Your task to perform on an android device: open app "Microsoft Excel" (install if not already installed) Image 0: 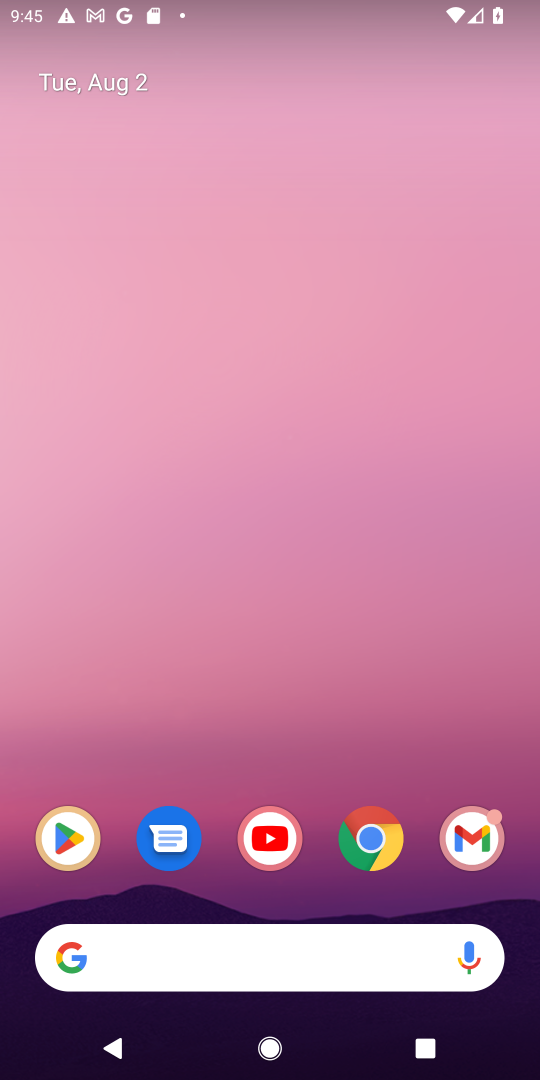
Step 0: drag from (308, 768) to (292, 90)
Your task to perform on an android device: open app "Microsoft Excel" (install if not already installed) Image 1: 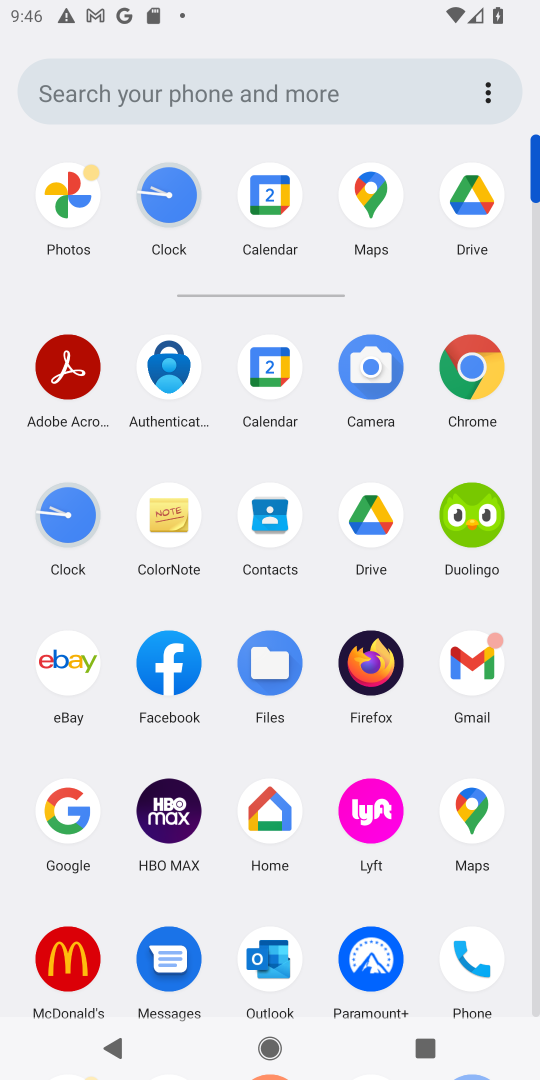
Step 1: drag from (313, 893) to (318, 534)
Your task to perform on an android device: open app "Microsoft Excel" (install if not already installed) Image 2: 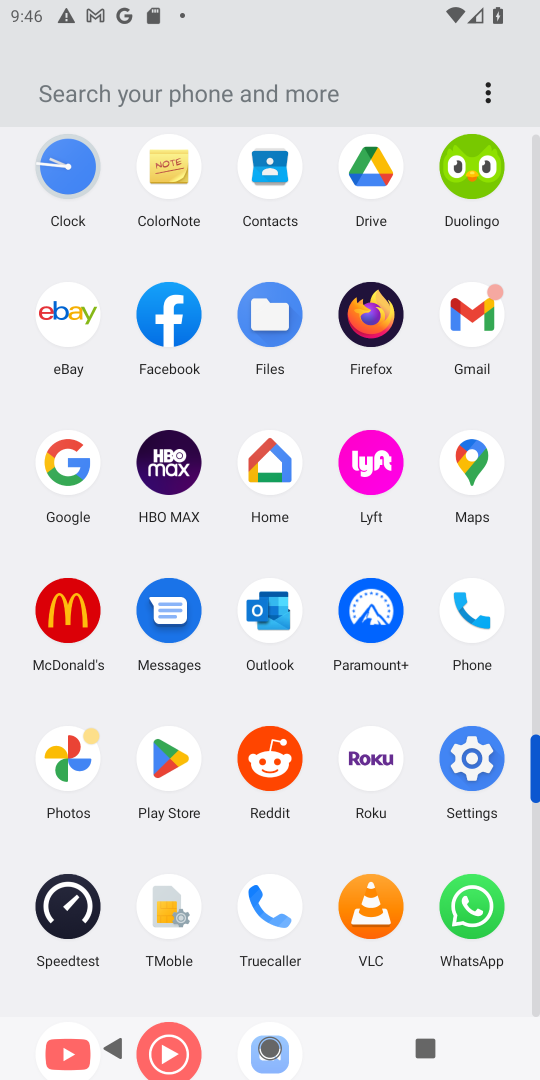
Step 2: click (168, 768)
Your task to perform on an android device: open app "Microsoft Excel" (install if not already installed) Image 3: 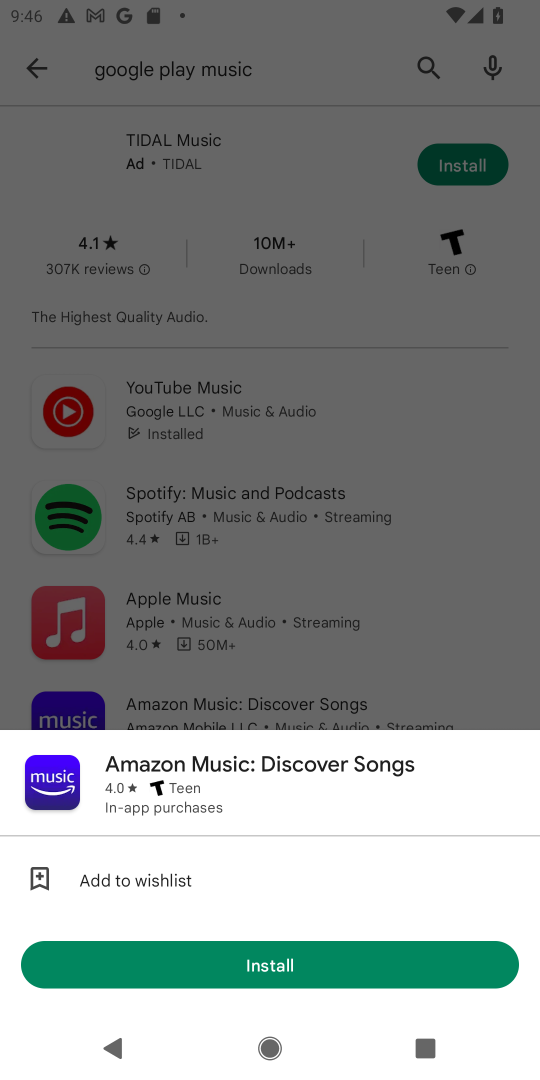
Step 3: press back button
Your task to perform on an android device: open app "Microsoft Excel" (install if not already installed) Image 4: 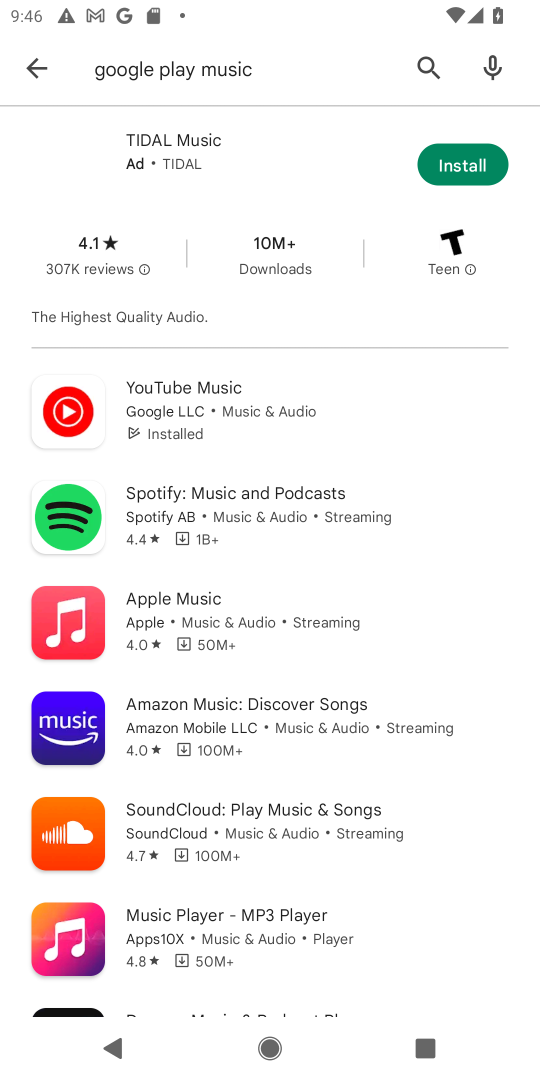
Step 4: click (426, 66)
Your task to perform on an android device: open app "Microsoft Excel" (install if not already installed) Image 5: 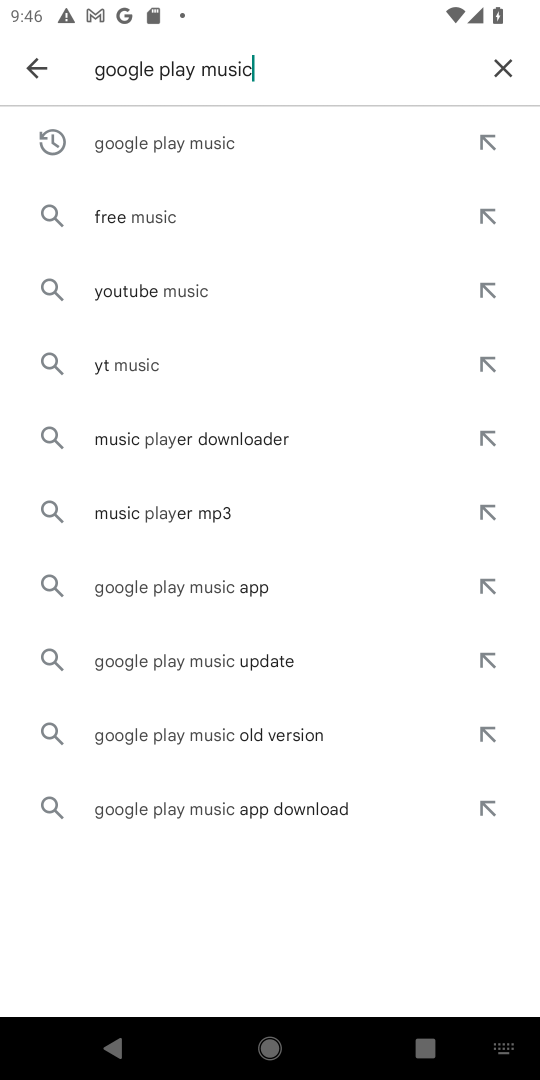
Step 5: click (501, 79)
Your task to perform on an android device: open app "Microsoft Excel" (install if not already installed) Image 6: 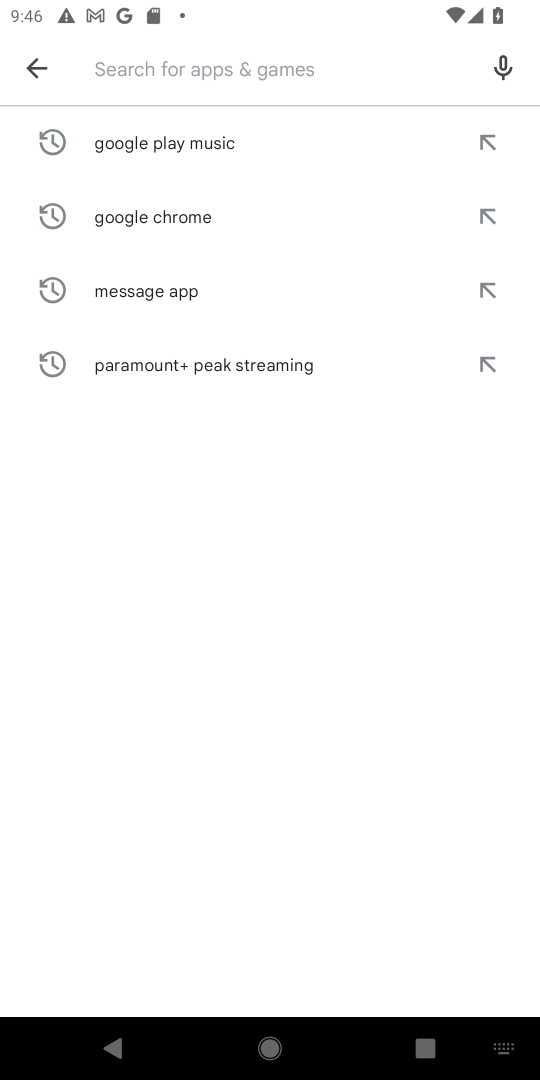
Step 6: click (359, 74)
Your task to perform on an android device: open app "Microsoft Excel" (install if not already installed) Image 7: 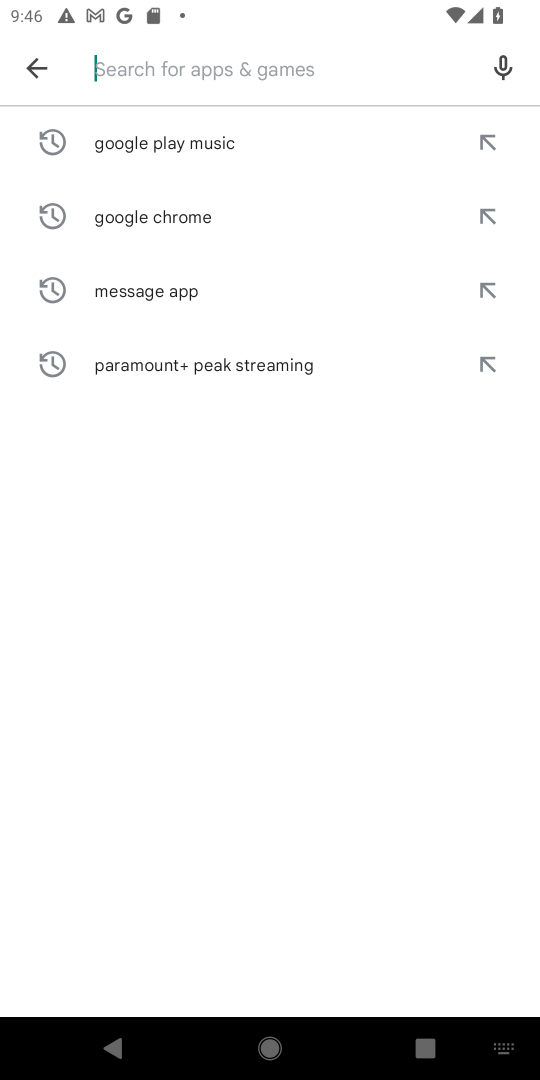
Step 7: type "microsoft excel"
Your task to perform on an android device: open app "Microsoft Excel" (install if not already installed) Image 8: 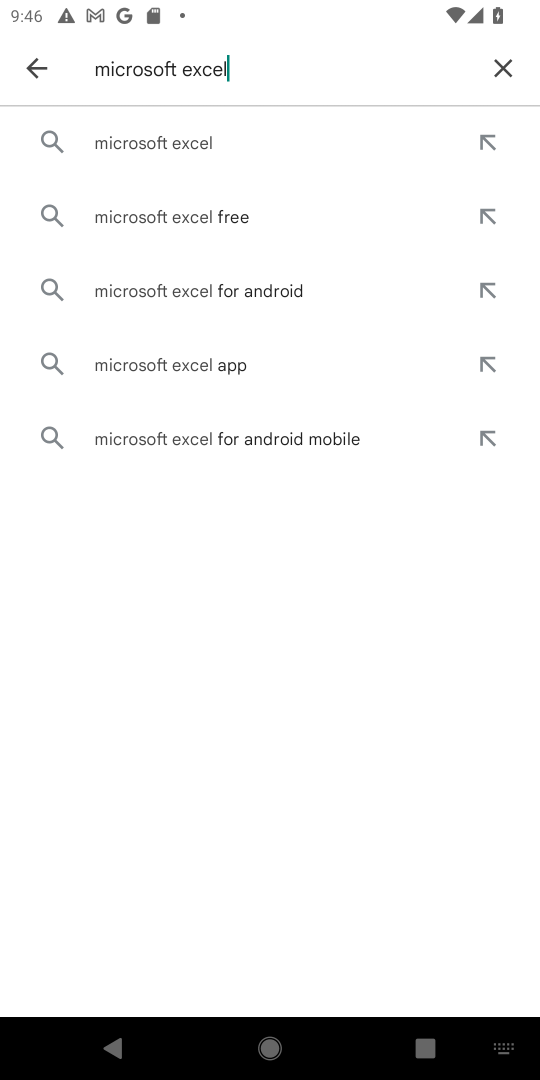
Step 8: click (240, 142)
Your task to perform on an android device: open app "Microsoft Excel" (install if not already installed) Image 9: 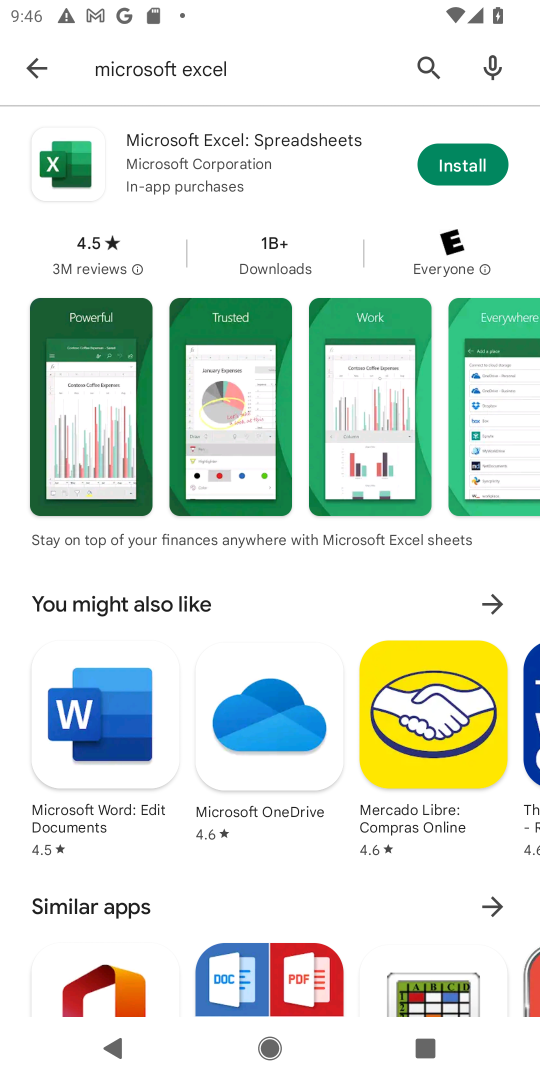
Step 9: click (471, 167)
Your task to perform on an android device: open app "Microsoft Excel" (install if not already installed) Image 10: 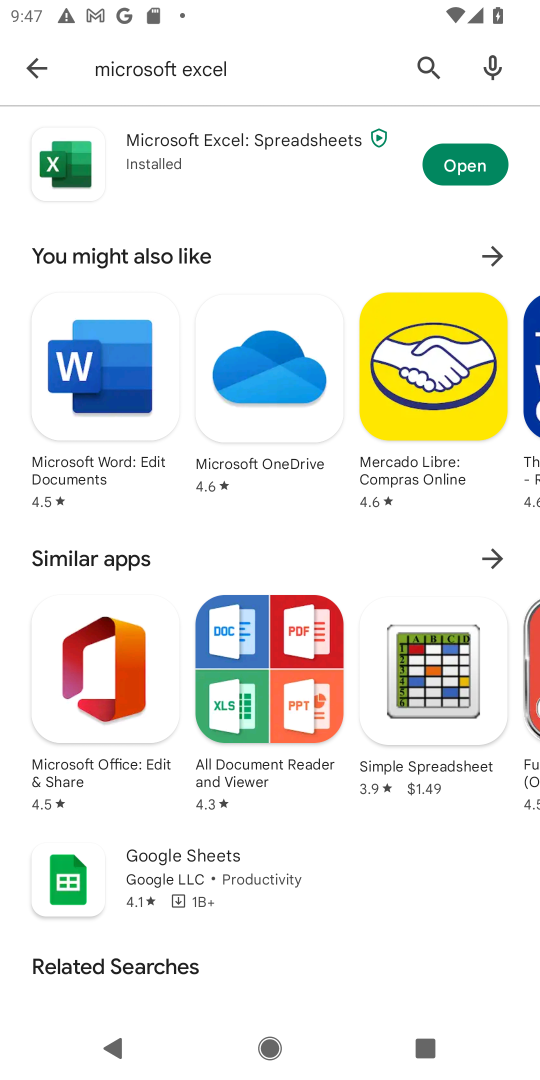
Step 10: click (485, 164)
Your task to perform on an android device: open app "Microsoft Excel" (install if not already installed) Image 11: 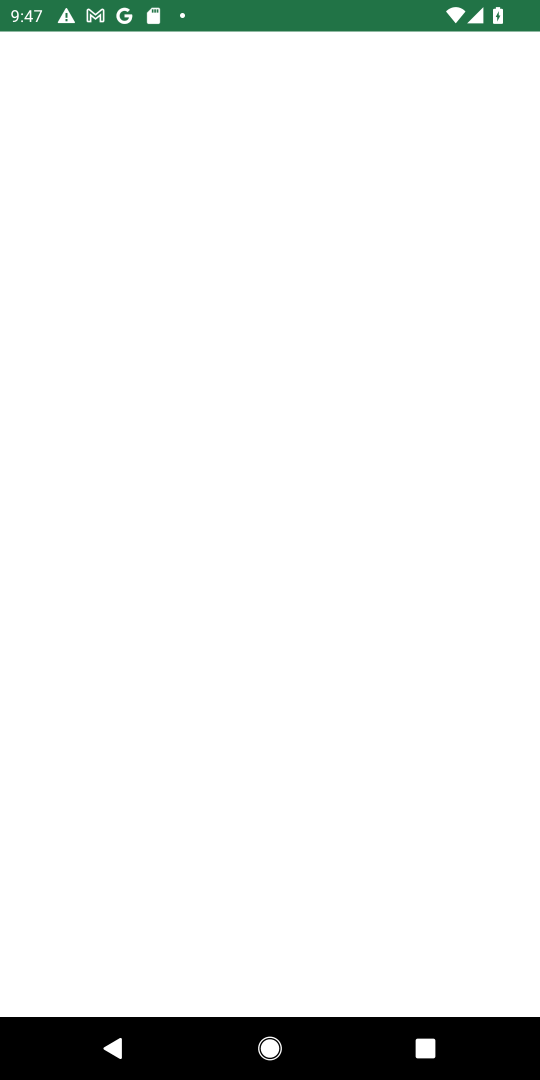
Step 11: task complete